Your task to perform on an android device: What is the recent news? Image 0: 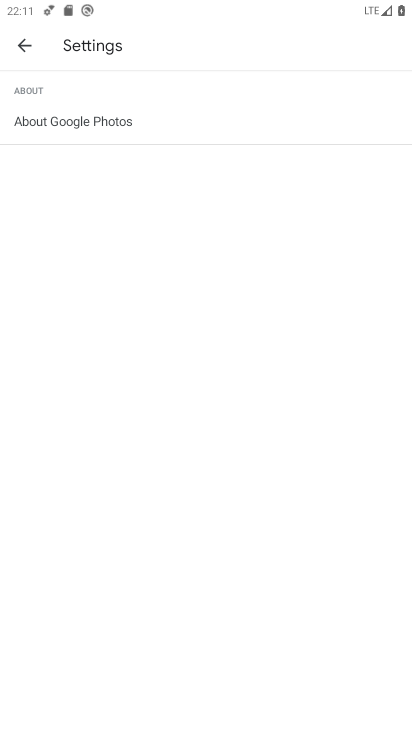
Step 0: press home button
Your task to perform on an android device: What is the recent news? Image 1: 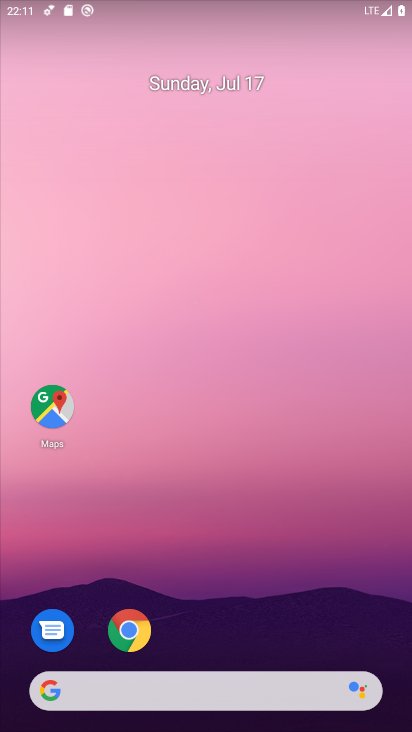
Step 1: click (188, 683)
Your task to perform on an android device: What is the recent news? Image 2: 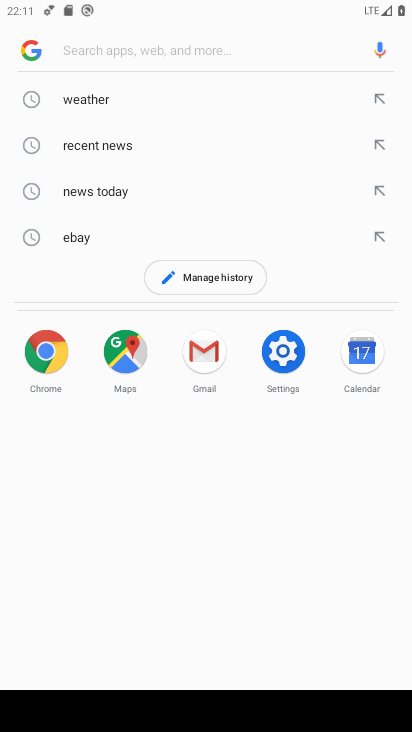
Step 2: click (112, 136)
Your task to perform on an android device: What is the recent news? Image 3: 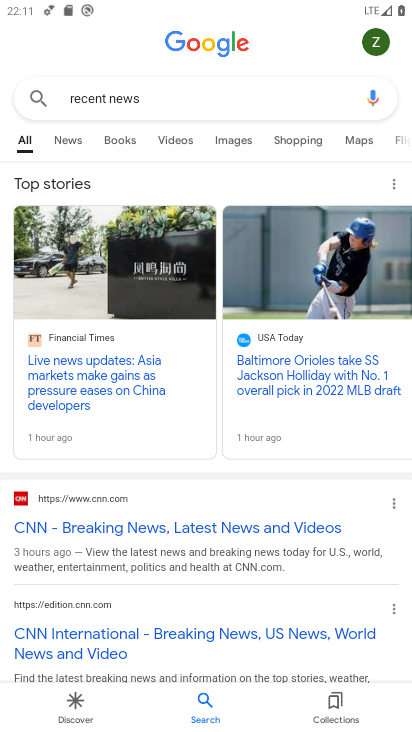
Step 3: task complete